Your task to perform on an android device: Go to ESPN.com Image 0: 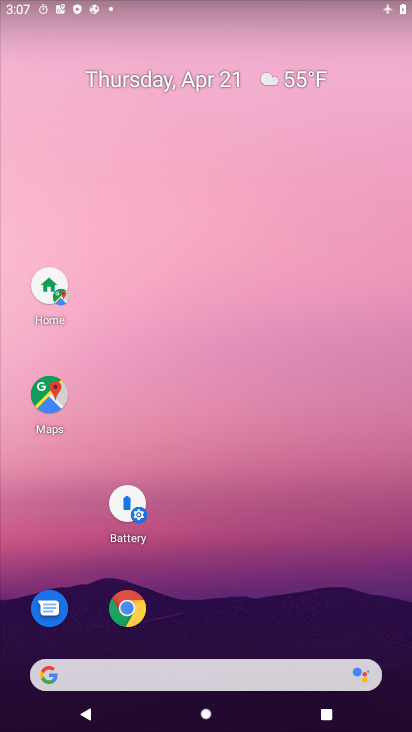
Step 0: drag from (326, 429) to (404, 17)
Your task to perform on an android device: Go to ESPN.com Image 1: 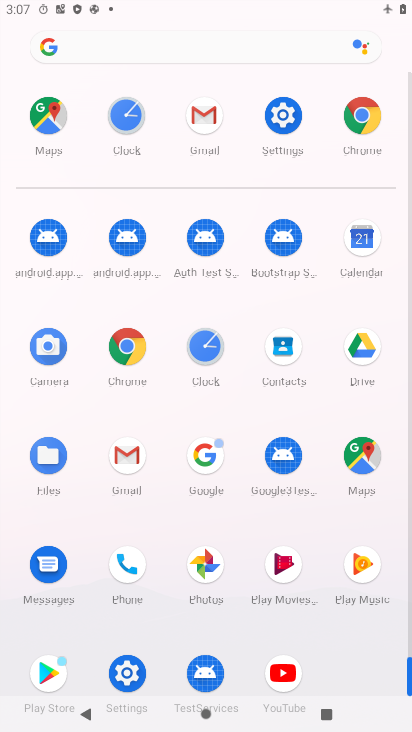
Step 1: click (354, 116)
Your task to perform on an android device: Go to ESPN.com Image 2: 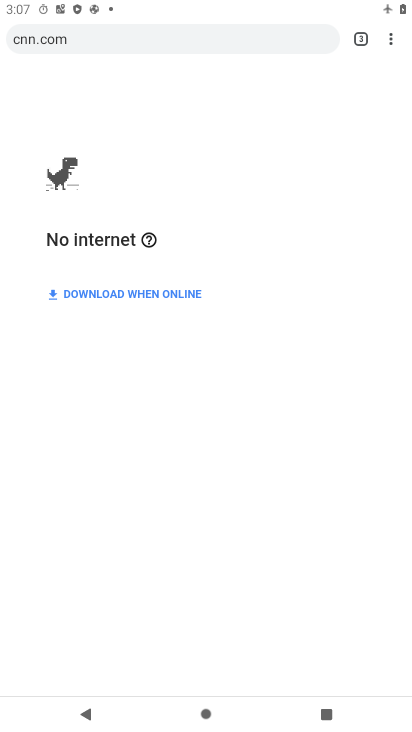
Step 2: task complete